Your task to perform on an android device: check out phone information Image 0: 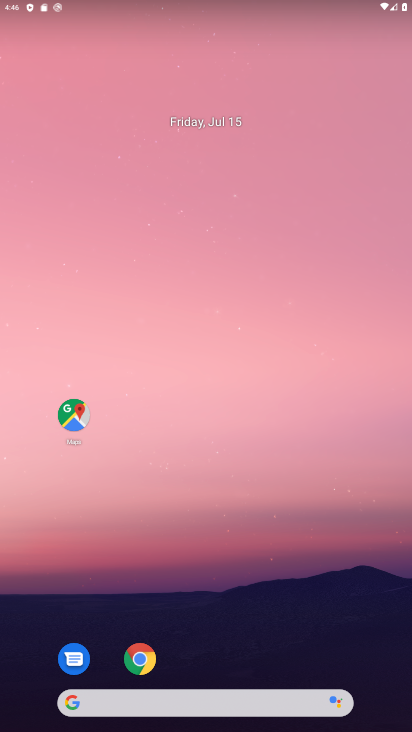
Step 0: drag from (221, 630) to (378, 31)
Your task to perform on an android device: check out phone information Image 1: 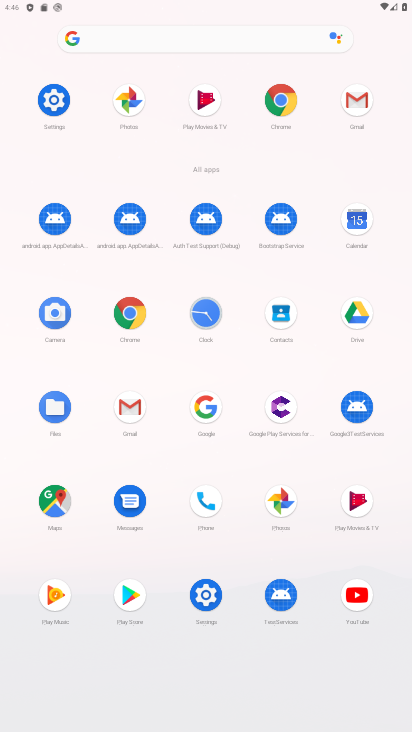
Step 1: click (208, 580)
Your task to perform on an android device: check out phone information Image 2: 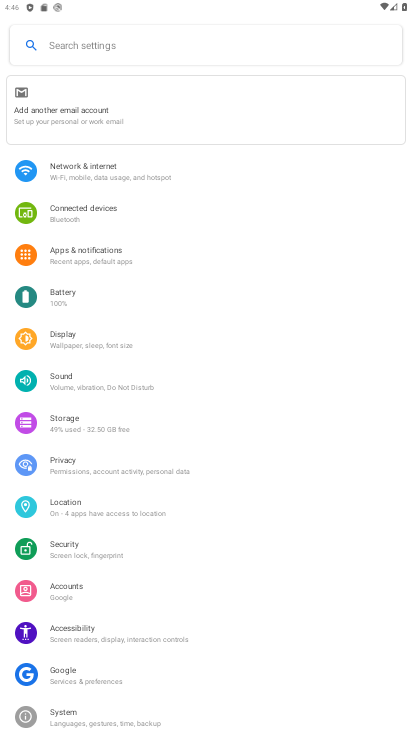
Step 2: task complete